Your task to perform on an android device: install app "DuckDuckGo Privacy Browser" Image 0: 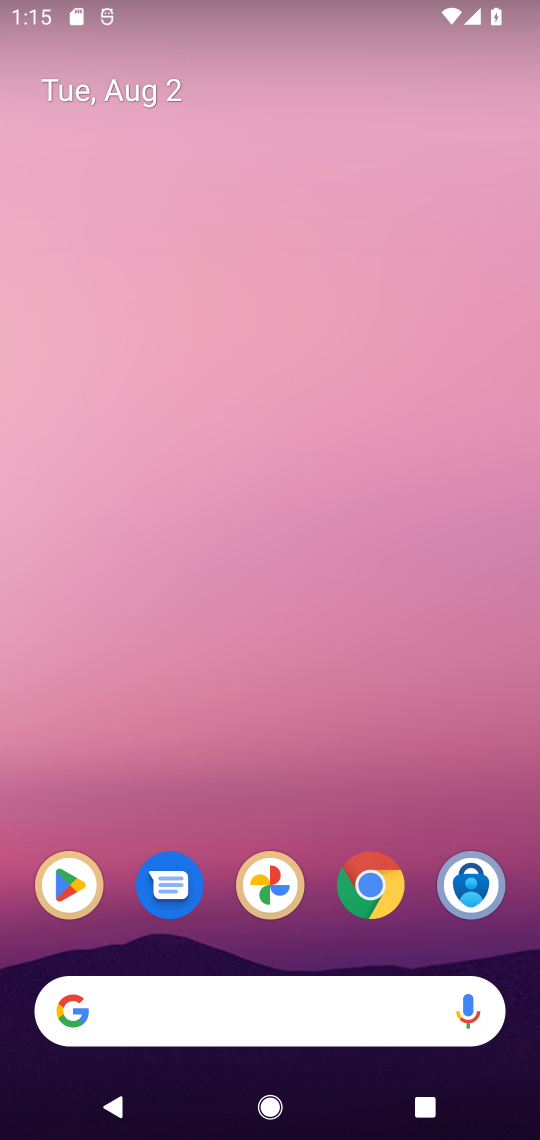
Step 0: click (53, 875)
Your task to perform on an android device: install app "DuckDuckGo Privacy Browser" Image 1: 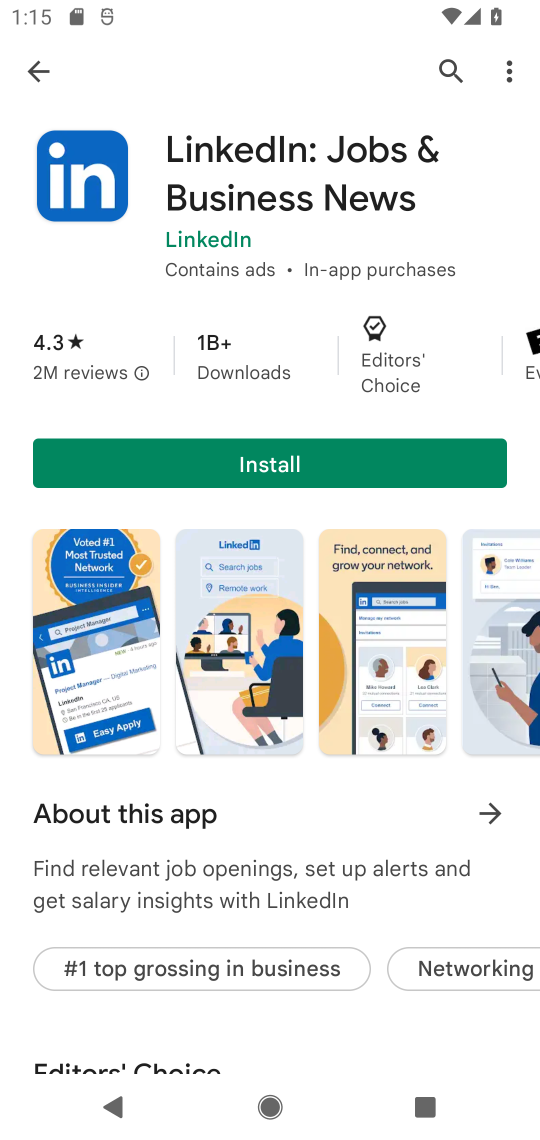
Step 1: click (435, 58)
Your task to perform on an android device: install app "DuckDuckGo Privacy Browser" Image 2: 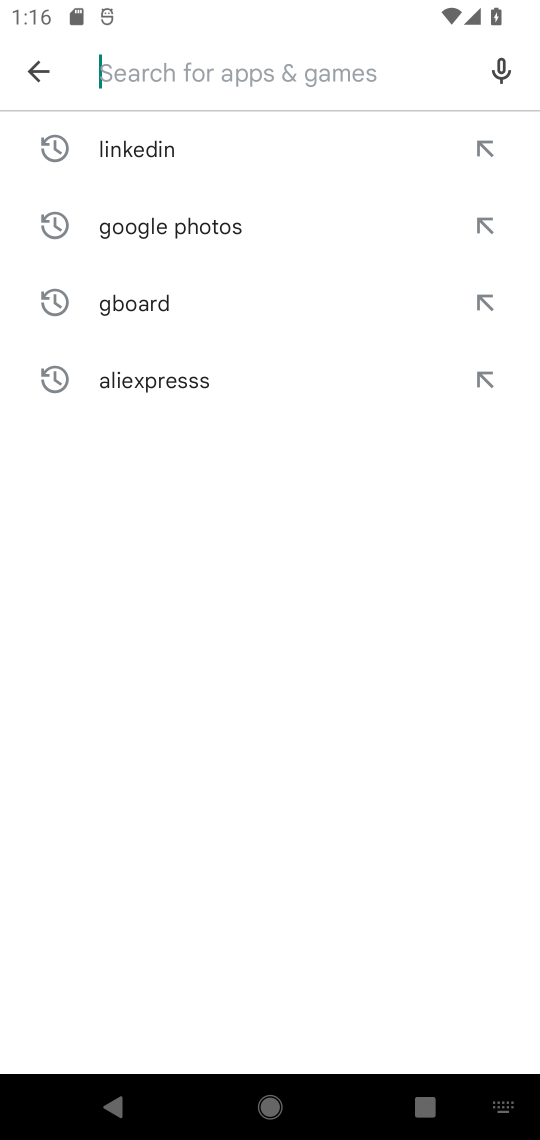
Step 2: type "duckduckgo privacy browser"
Your task to perform on an android device: install app "DuckDuckGo Privacy Browser" Image 3: 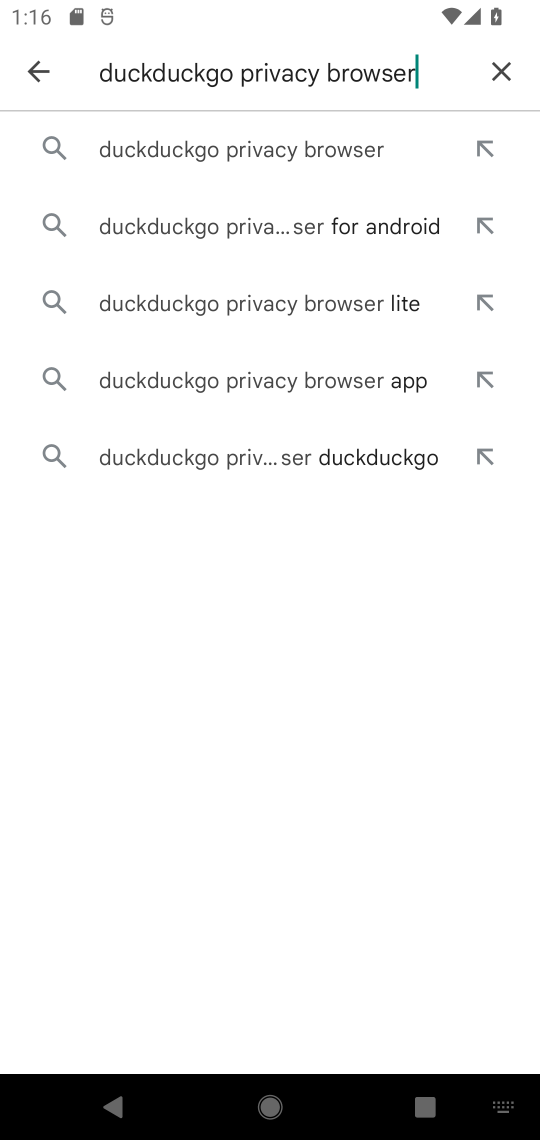
Step 3: click (288, 137)
Your task to perform on an android device: install app "DuckDuckGo Privacy Browser" Image 4: 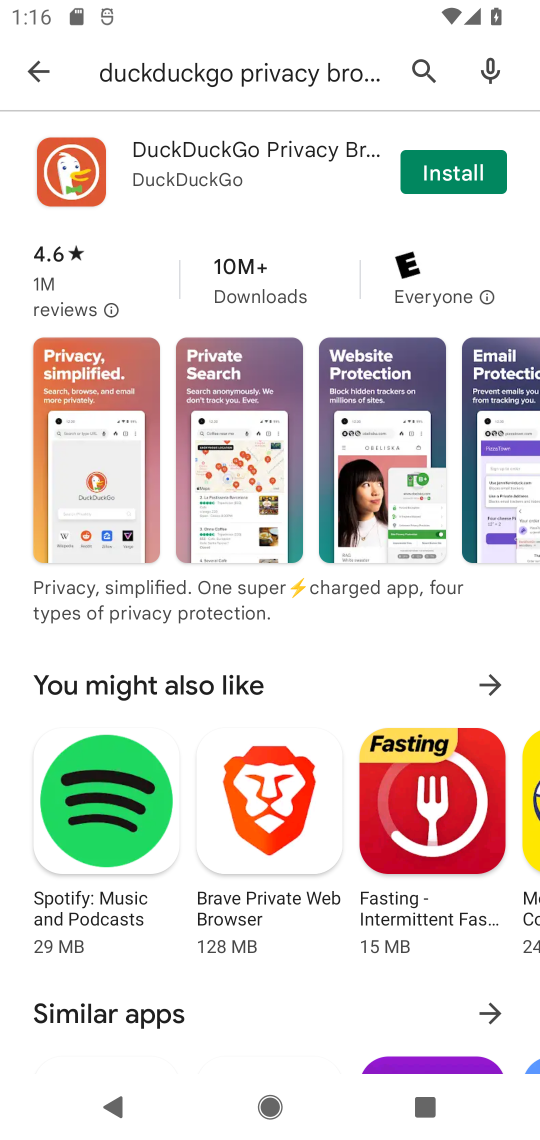
Step 4: click (206, 132)
Your task to perform on an android device: install app "DuckDuckGo Privacy Browser" Image 5: 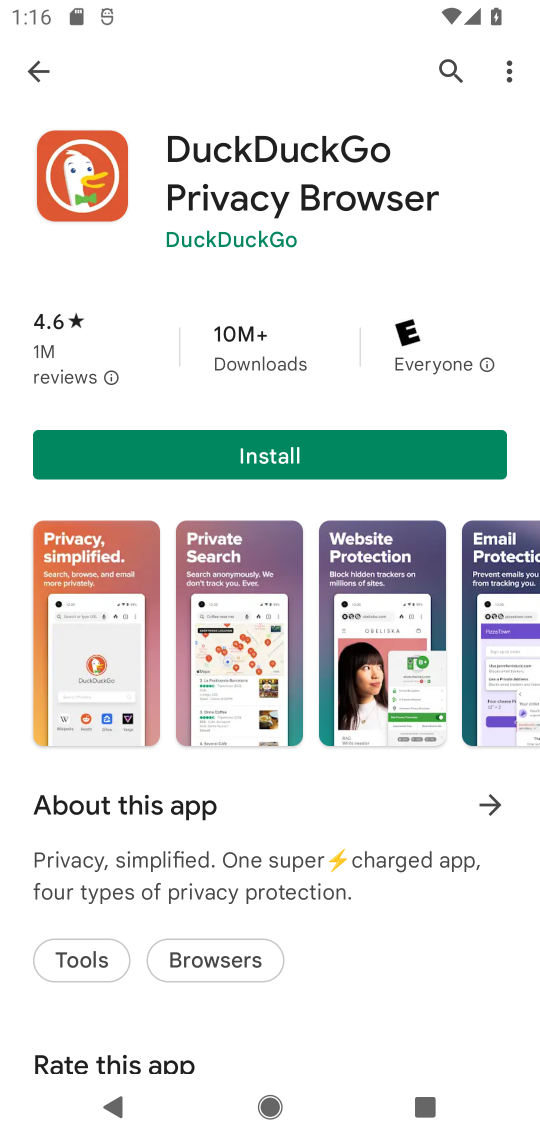
Step 5: click (146, 458)
Your task to perform on an android device: install app "DuckDuckGo Privacy Browser" Image 6: 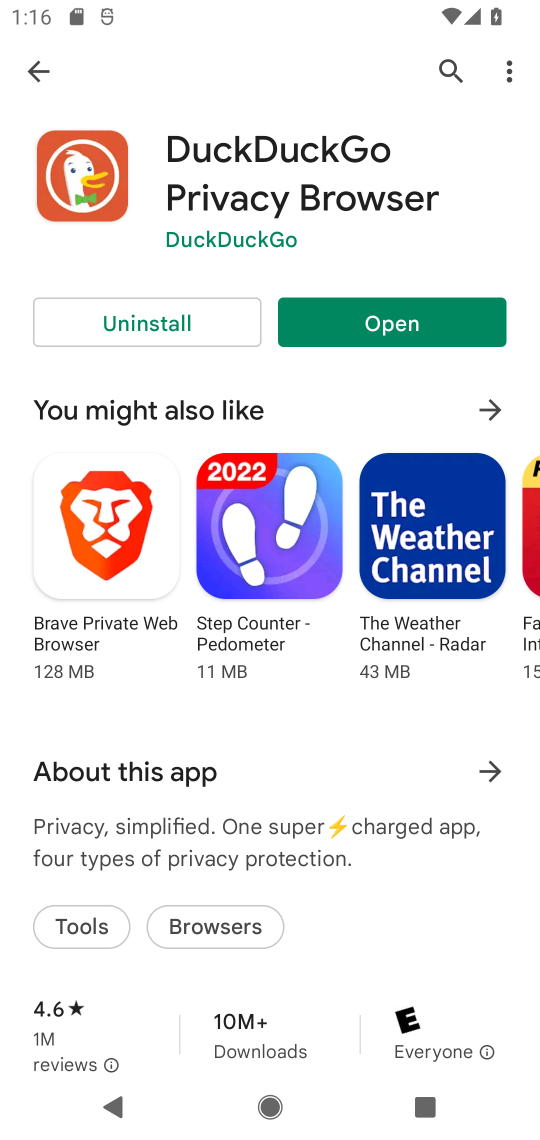
Step 6: task complete